Your task to perform on an android device: Go to Reddit Image 0: 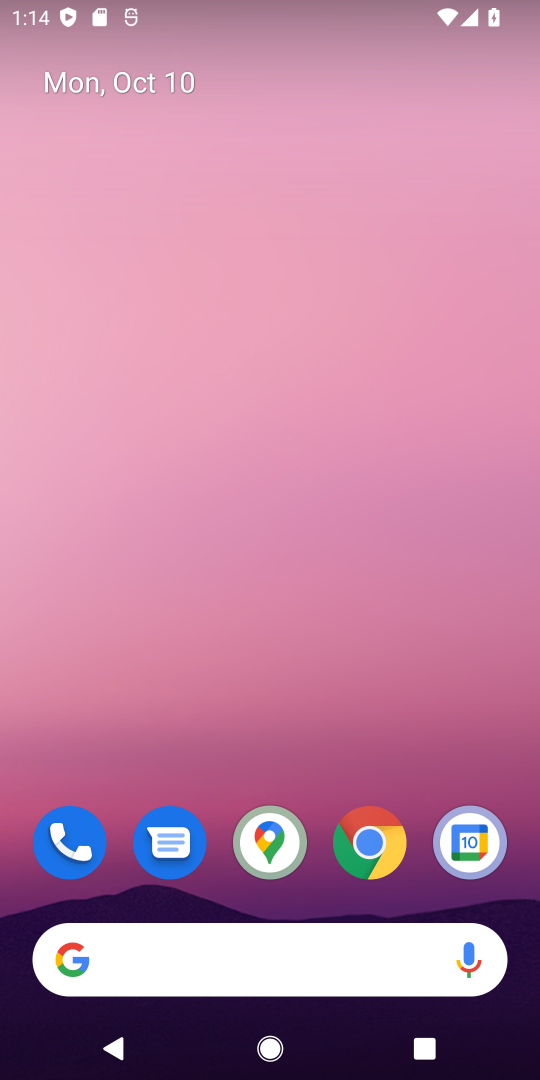
Step 0: click (388, 850)
Your task to perform on an android device: Go to Reddit Image 1: 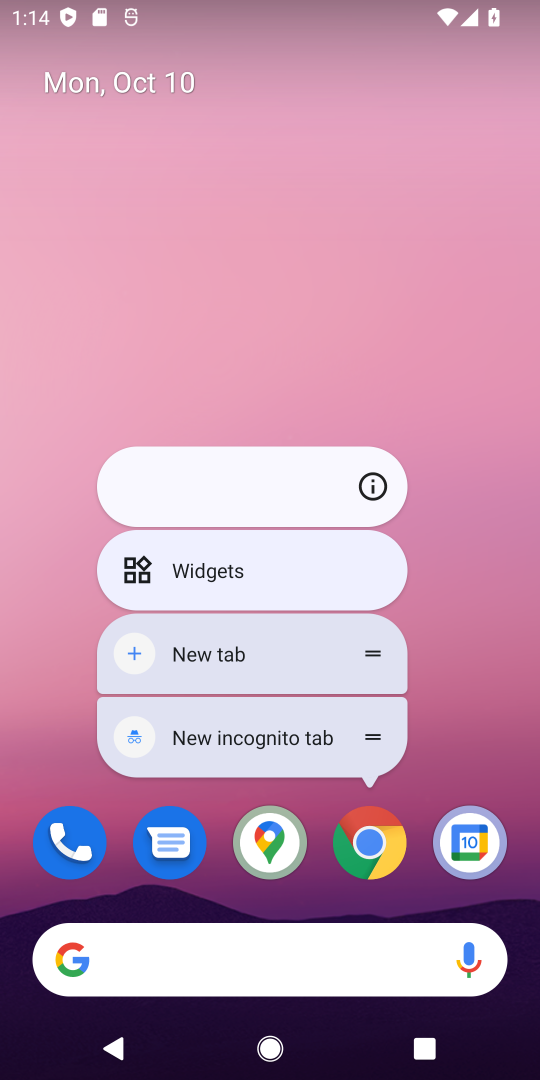
Step 1: click (384, 851)
Your task to perform on an android device: Go to Reddit Image 2: 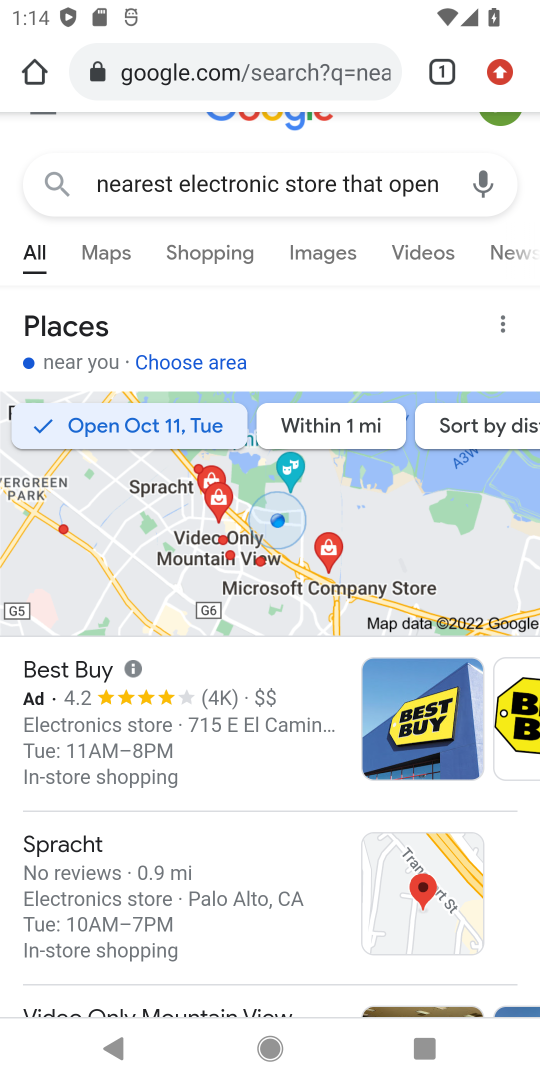
Step 2: click (265, 66)
Your task to perform on an android device: Go to Reddit Image 3: 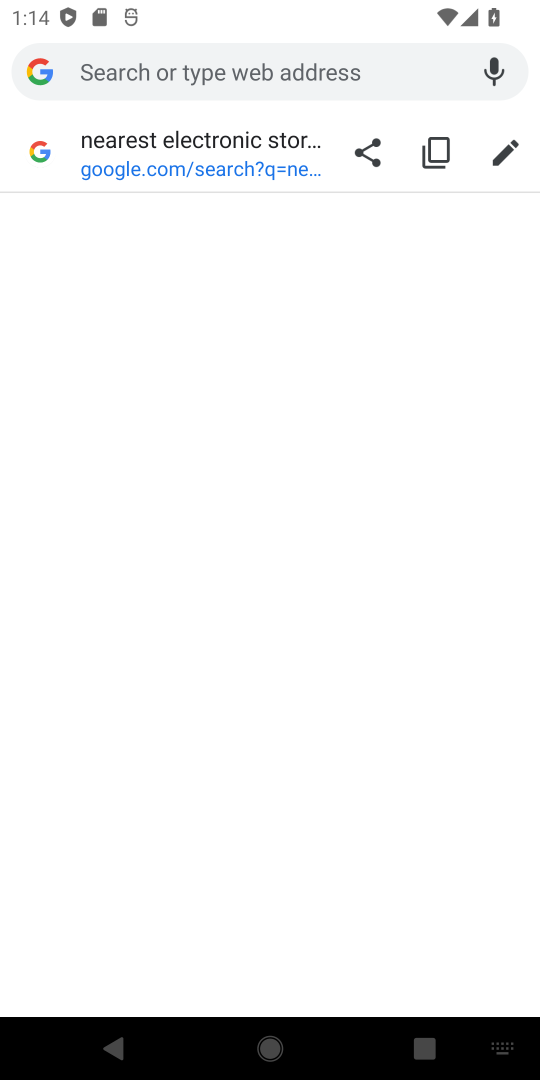
Step 3: type "reddit"
Your task to perform on an android device: Go to Reddit Image 4: 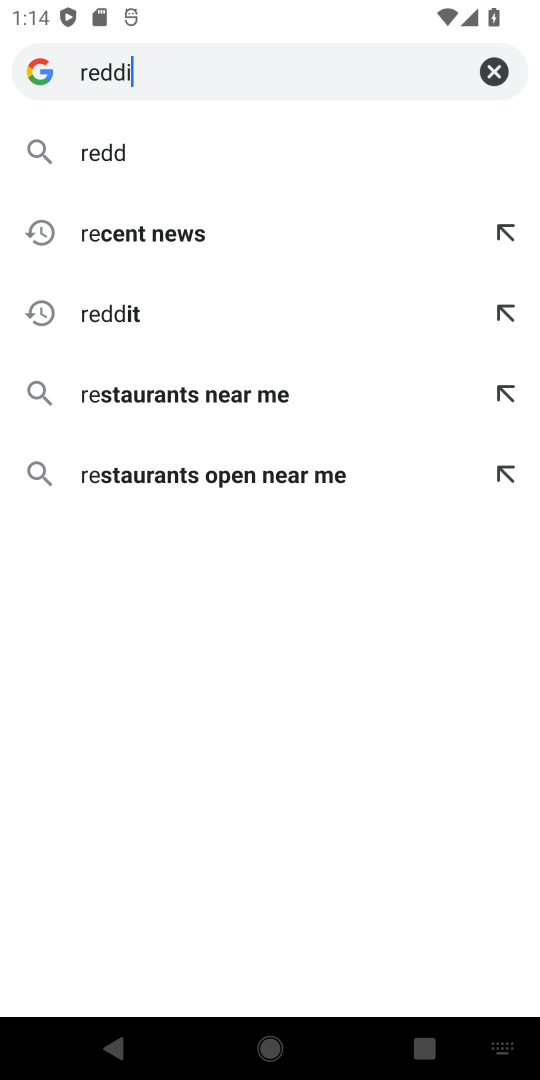
Step 4: type ""
Your task to perform on an android device: Go to Reddit Image 5: 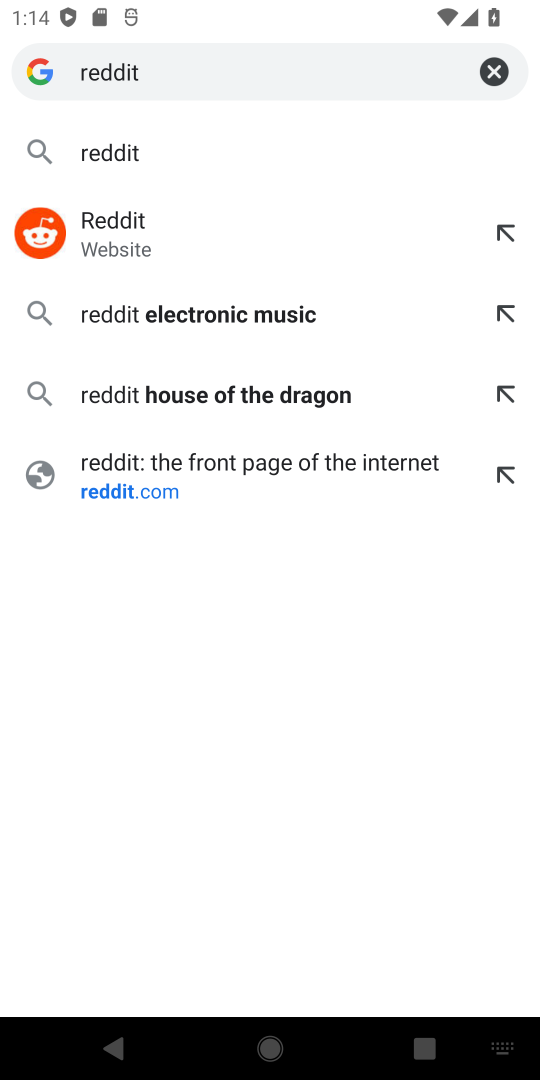
Step 5: click (275, 254)
Your task to perform on an android device: Go to Reddit Image 6: 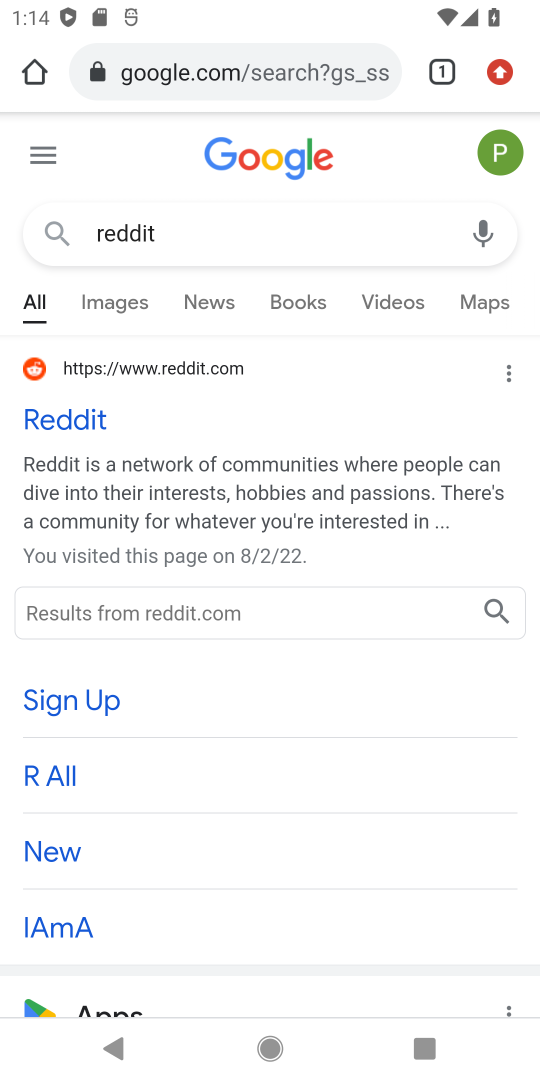
Step 6: click (78, 426)
Your task to perform on an android device: Go to Reddit Image 7: 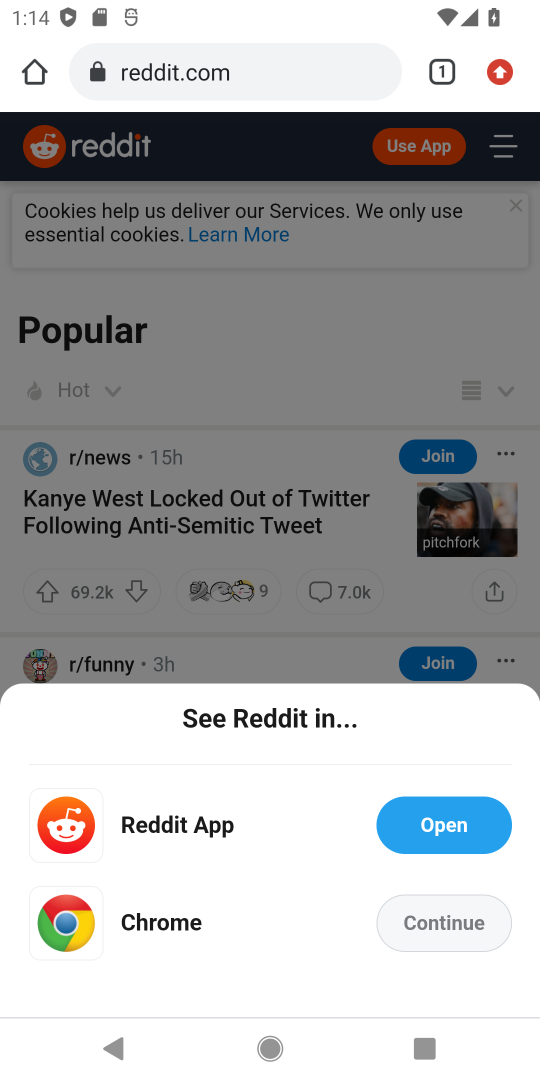
Step 7: click (461, 928)
Your task to perform on an android device: Go to Reddit Image 8: 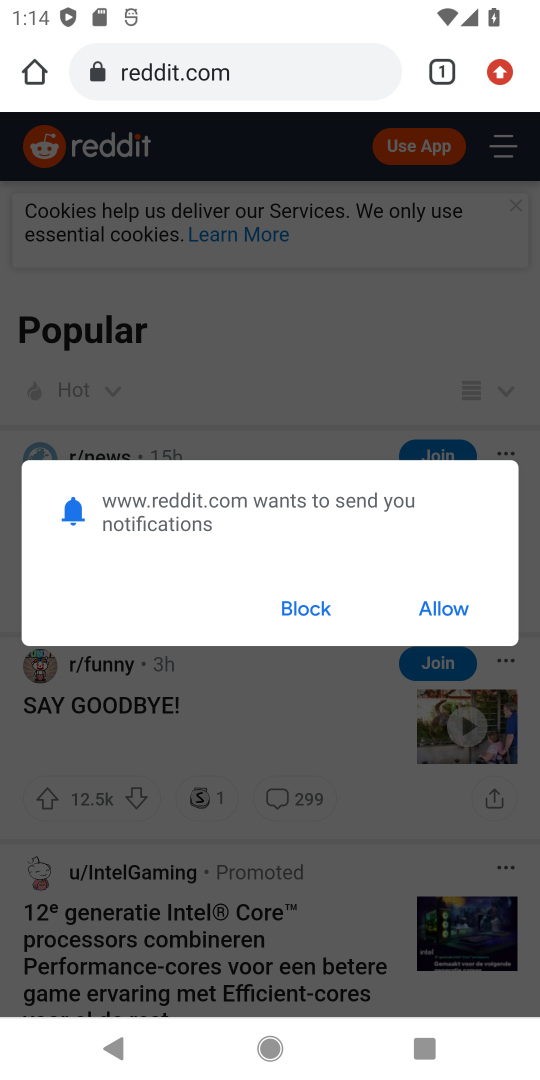
Step 8: click (451, 607)
Your task to perform on an android device: Go to Reddit Image 9: 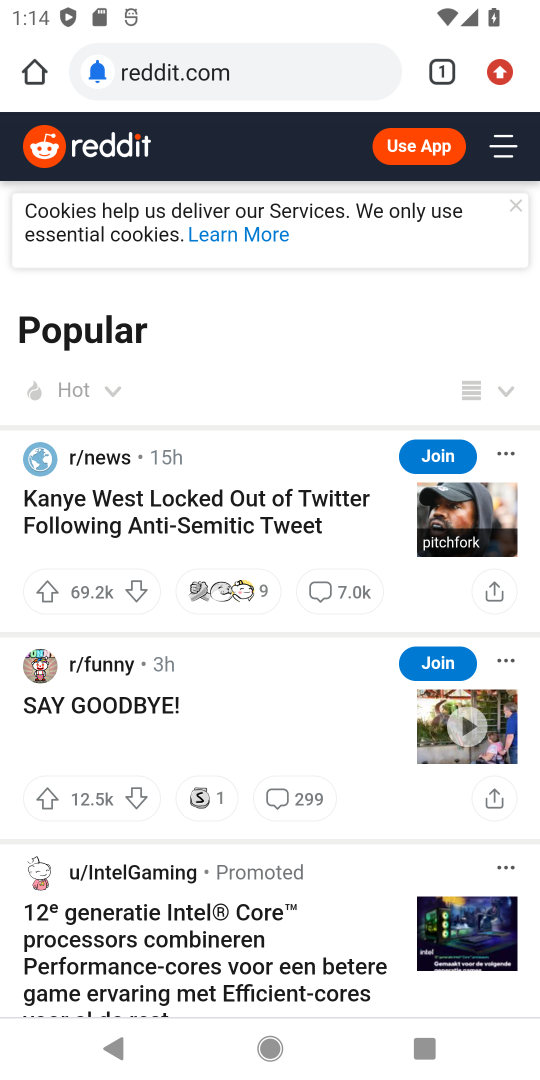
Step 9: task complete